Your task to perform on an android device: turn notification dots on Image 0: 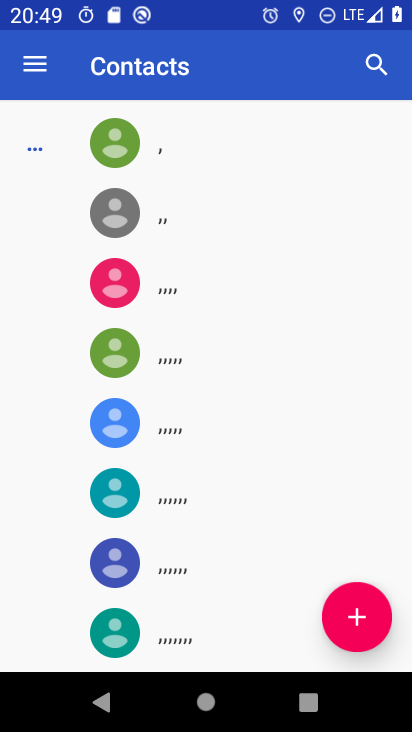
Step 0: press home button
Your task to perform on an android device: turn notification dots on Image 1: 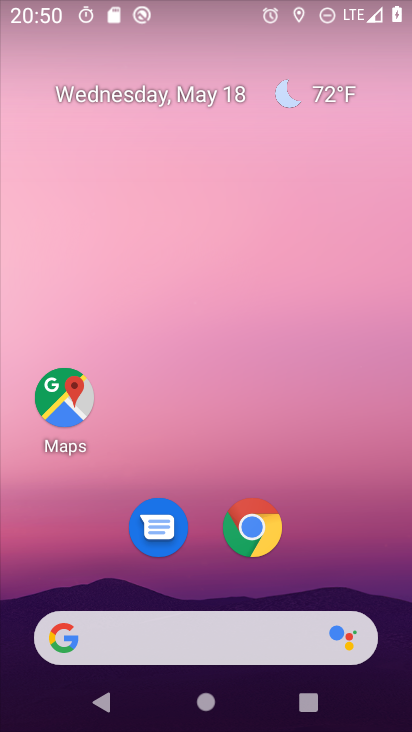
Step 1: drag from (388, 711) to (333, 303)
Your task to perform on an android device: turn notification dots on Image 2: 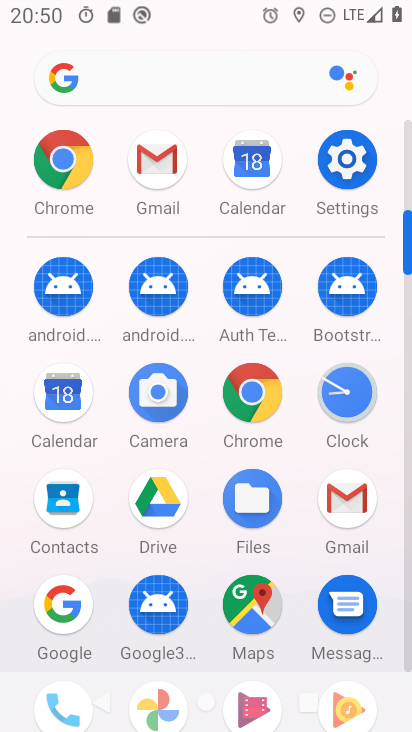
Step 2: click (338, 170)
Your task to perform on an android device: turn notification dots on Image 3: 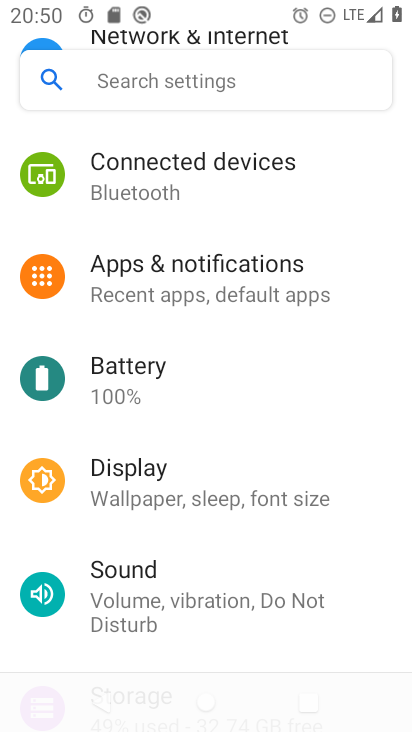
Step 3: click (182, 269)
Your task to perform on an android device: turn notification dots on Image 4: 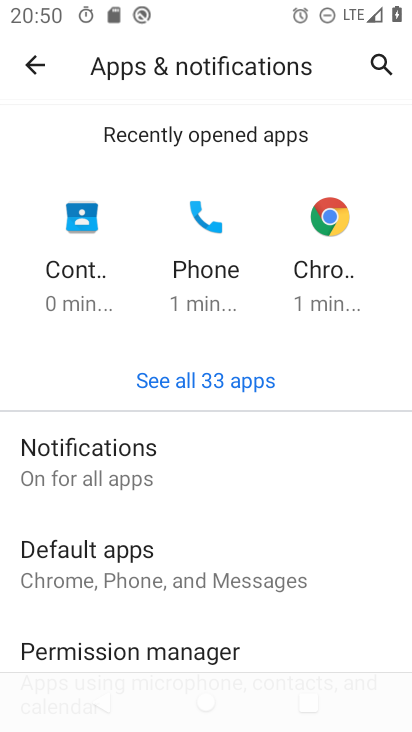
Step 4: click (75, 452)
Your task to perform on an android device: turn notification dots on Image 5: 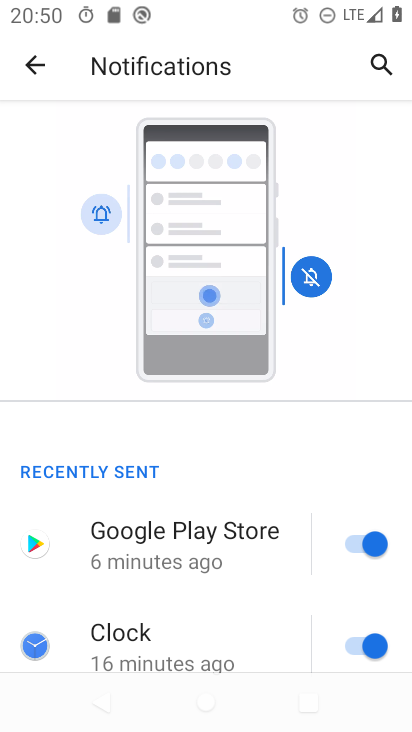
Step 5: drag from (275, 649) to (305, 299)
Your task to perform on an android device: turn notification dots on Image 6: 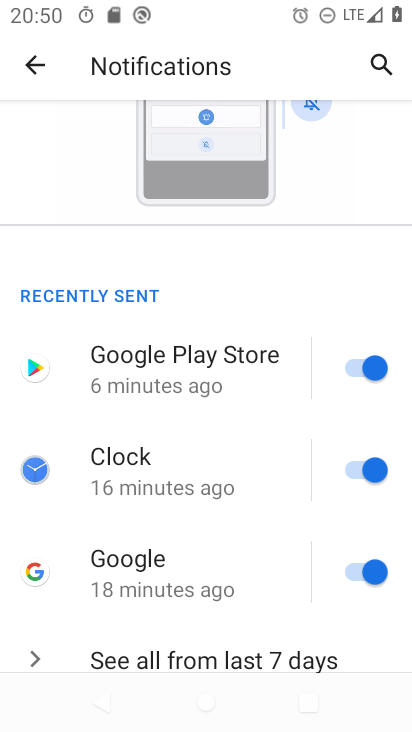
Step 6: drag from (274, 619) to (303, 171)
Your task to perform on an android device: turn notification dots on Image 7: 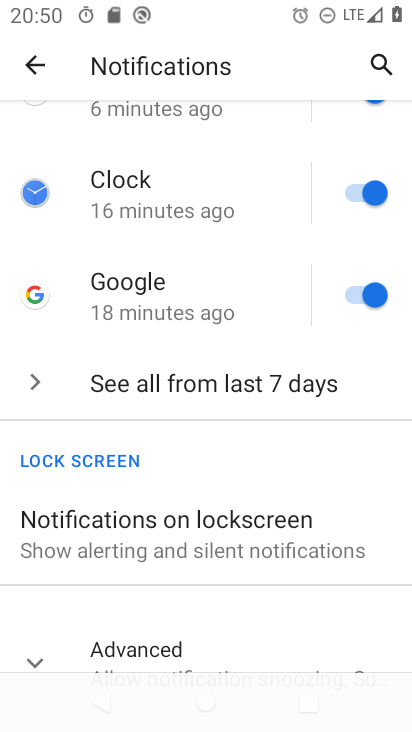
Step 7: drag from (248, 625) to (253, 330)
Your task to perform on an android device: turn notification dots on Image 8: 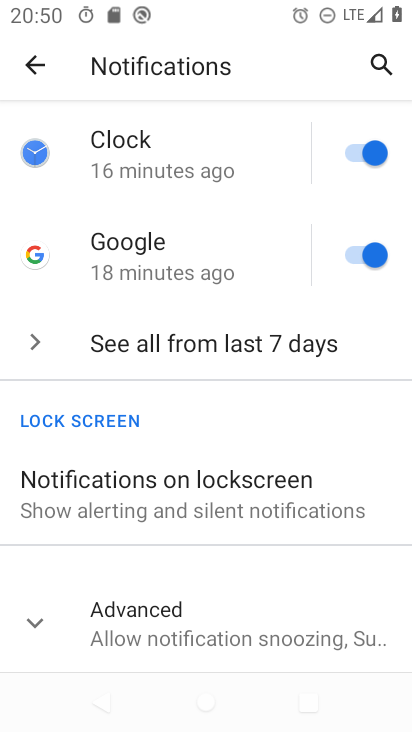
Step 8: drag from (247, 614) to (264, 367)
Your task to perform on an android device: turn notification dots on Image 9: 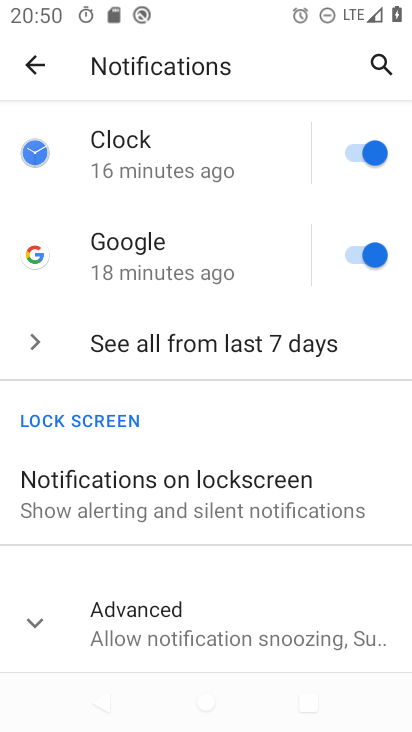
Step 9: click (32, 620)
Your task to perform on an android device: turn notification dots on Image 10: 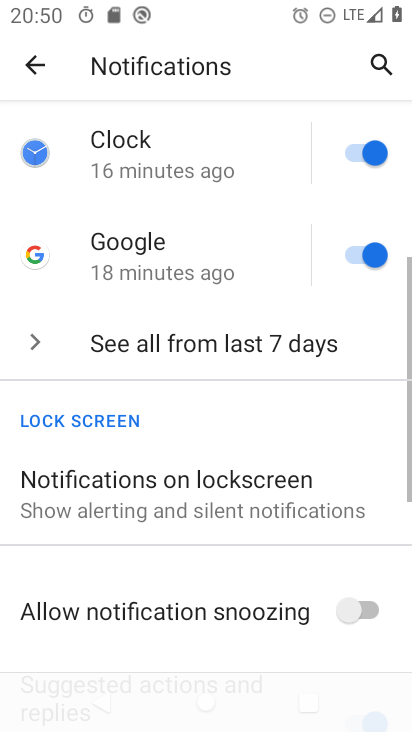
Step 10: task complete